Your task to perform on an android device: turn on location history Image 0: 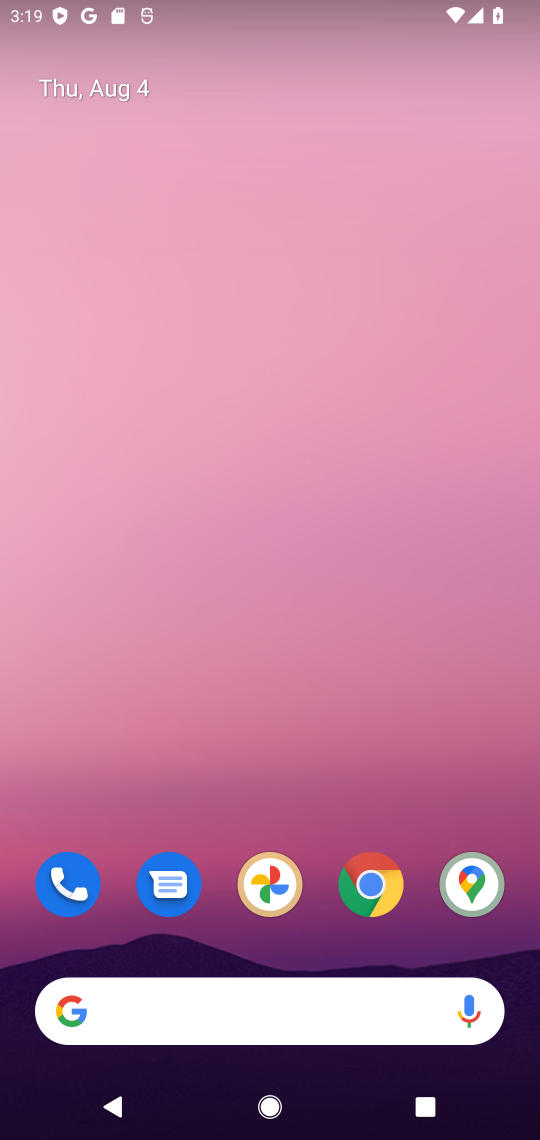
Step 0: click (257, 858)
Your task to perform on an android device: turn on location history Image 1: 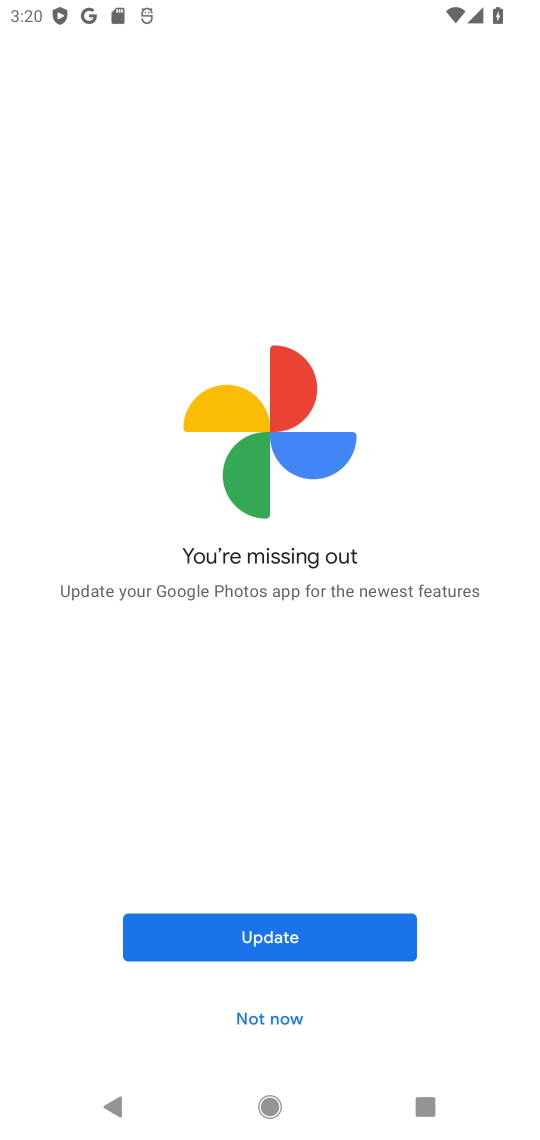
Step 1: click (281, 1023)
Your task to perform on an android device: turn on location history Image 2: 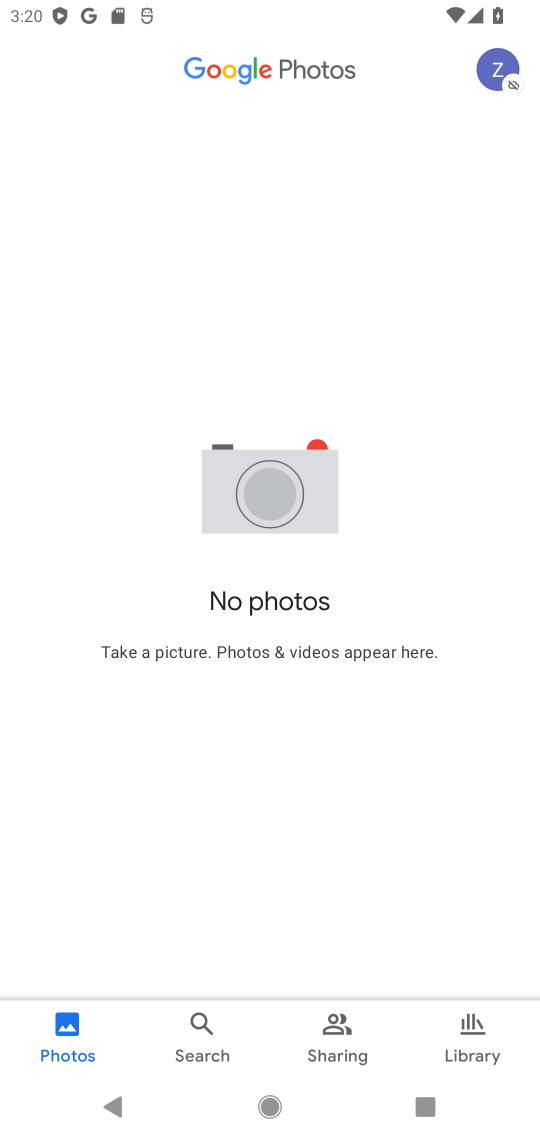
Step 2: drag from (251, 871) to (267, 447)
Your task to perform on an android device: turn on location history Image 3: 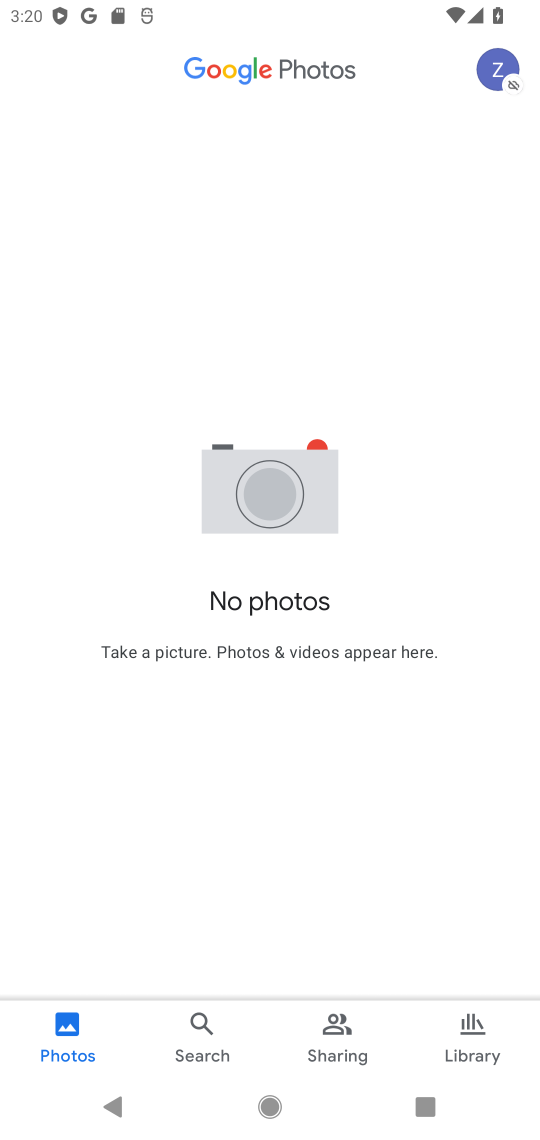
Step 3: drag from (340, 819) to (322, 619)
Your task to perform on an android device: turn on location history Image 4: 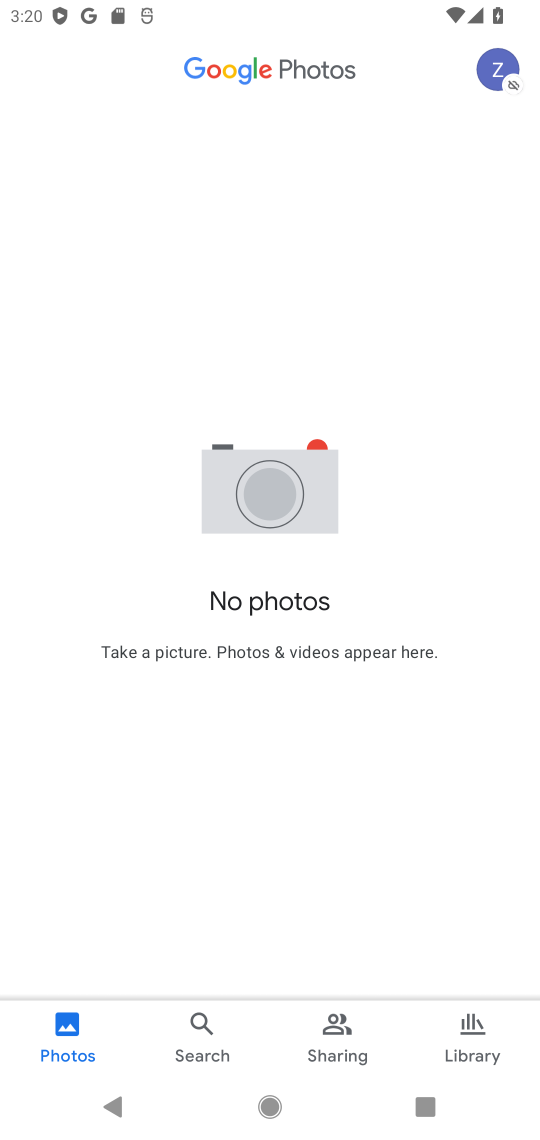
Step 4: drag from (254, 827) to (253, 461)
Your task to perform on an android device: turn on location history Image 5: 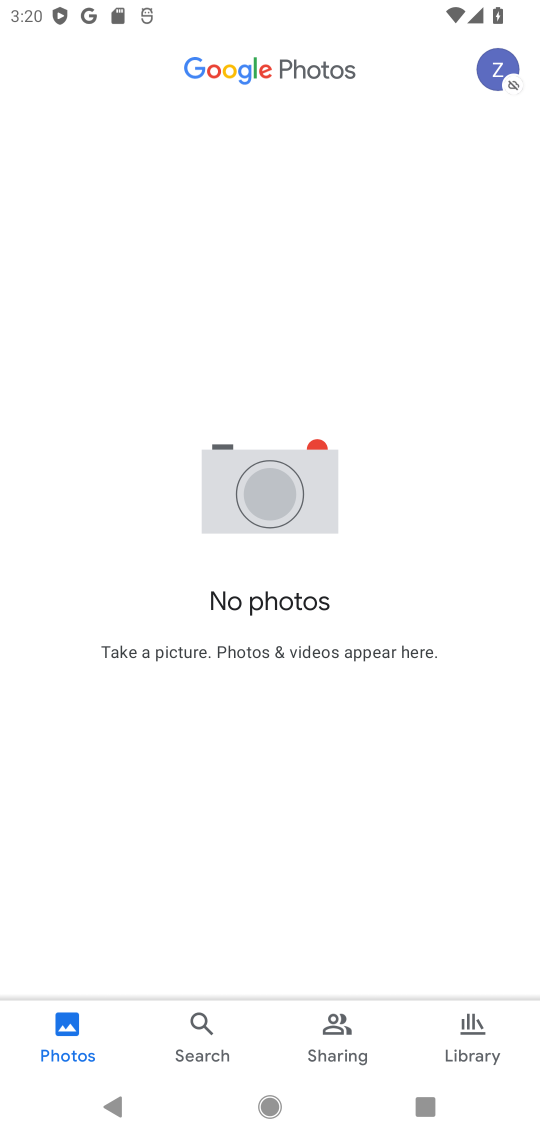
Step 5: drag from (256, 808) to (343, 457)
Your task to perform on an android device: turn on location history Image 6: 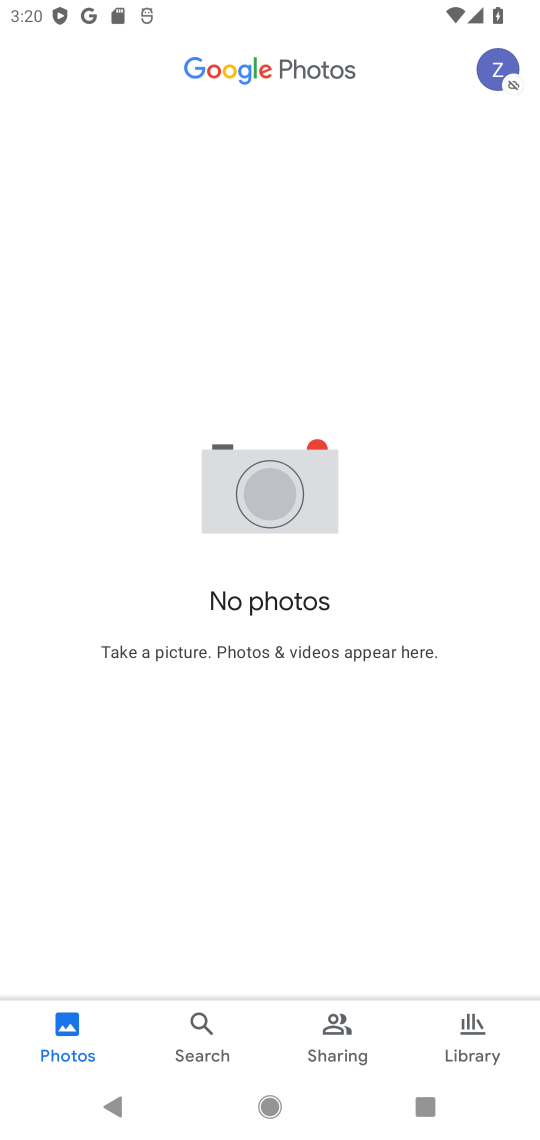
Step 6: press home button
Your task to perform on an android device: turn on location history Image 7: 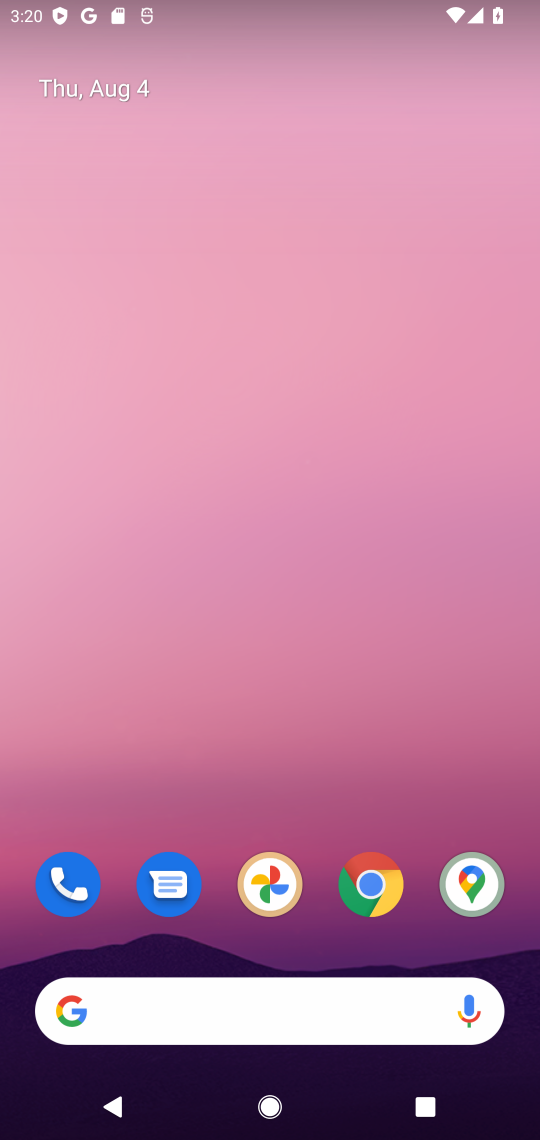
Step 7: drag from (366, 786) to (371, 134)
Your task to perform on an android device: turn on location history Image 8: 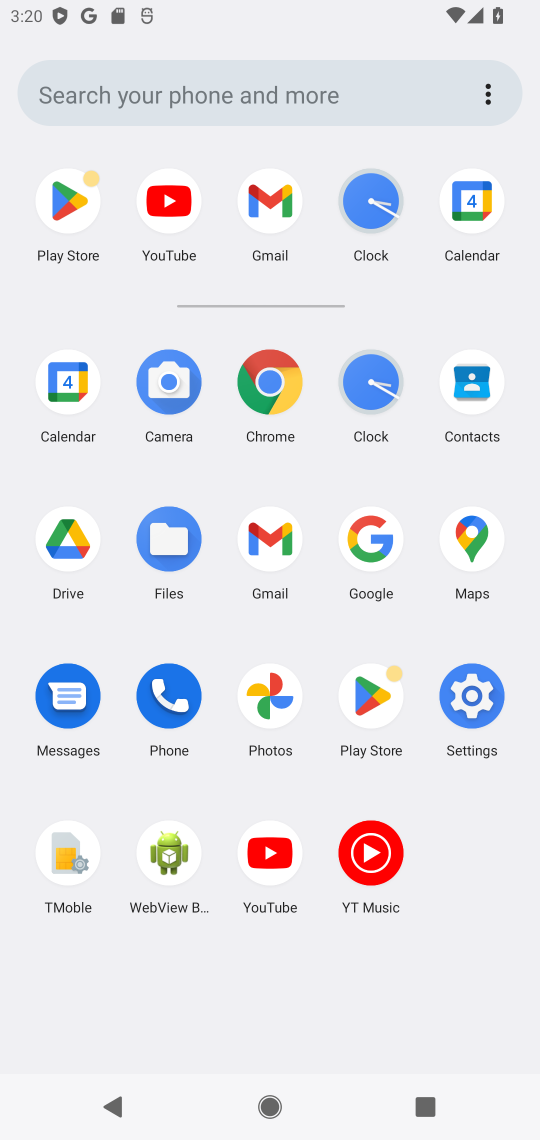
Step 8: click (473, 687)
Your task to perform on an android device: turn on location history Image 9: 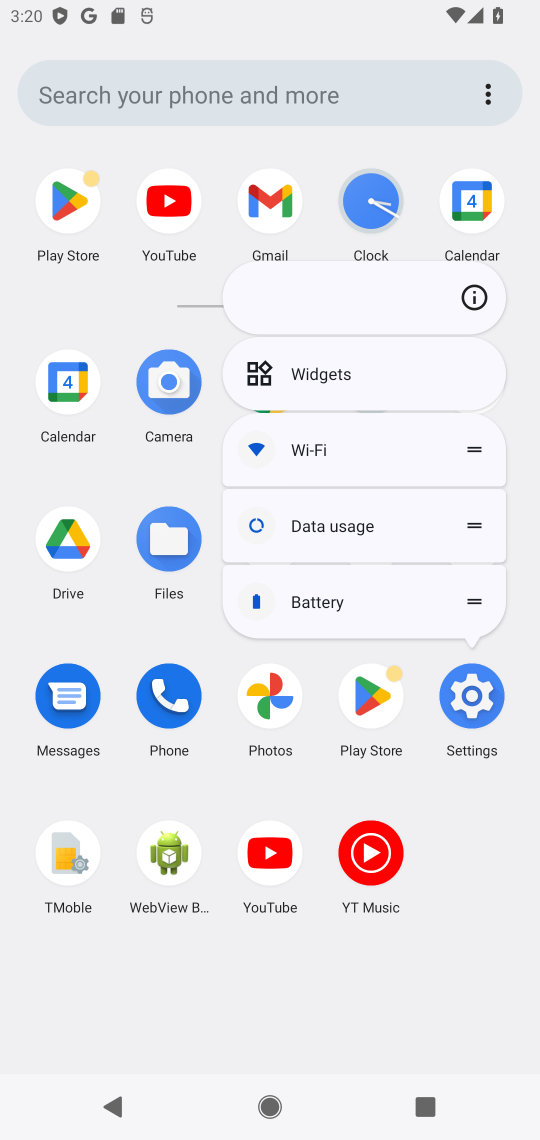
Step 9: click (475, 282)
Your task to perform on an android device: turn on location history Image 10: 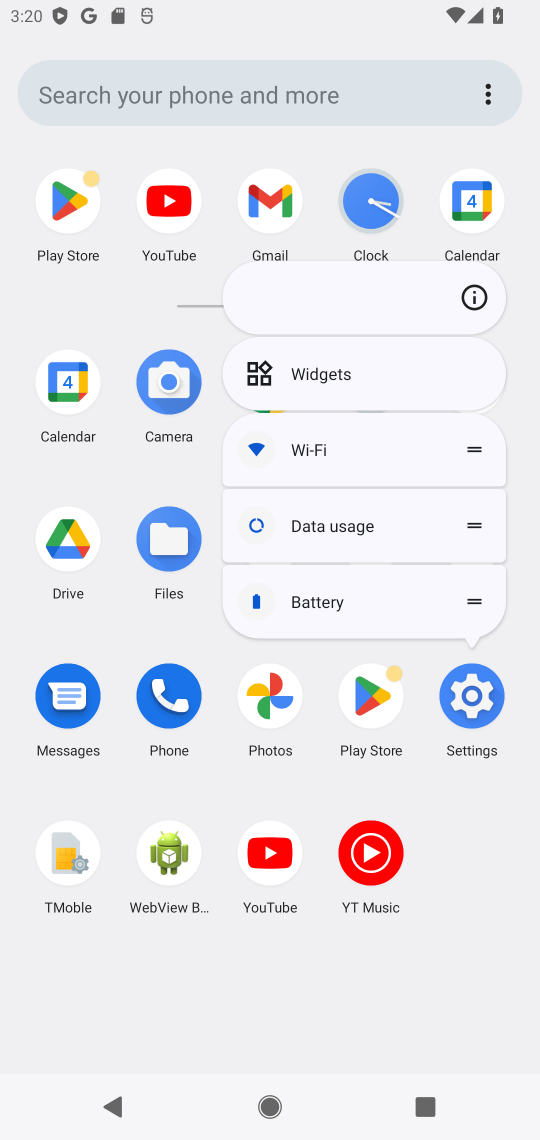
Step 10: click (490, 294)
Your task to perform on an android device: turn on location history Image 11: 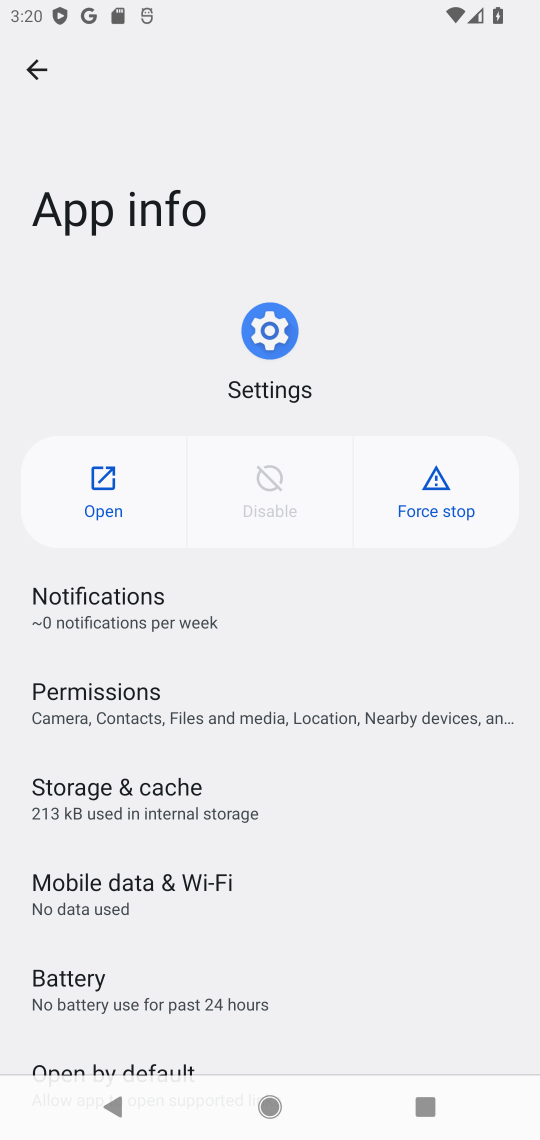
Step 11: click (97, 509)
Your task to perform on an android device: turn on location history Image 12: 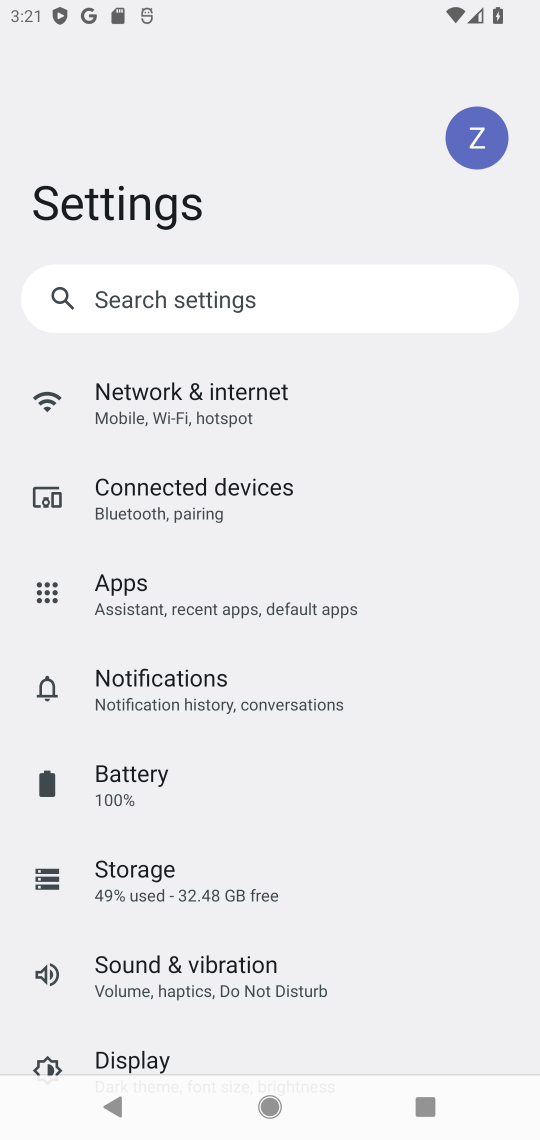
Step 12: drag from (228, 911) to (280, 204)
Your task to perform on an android device: turn on location history Image 13: 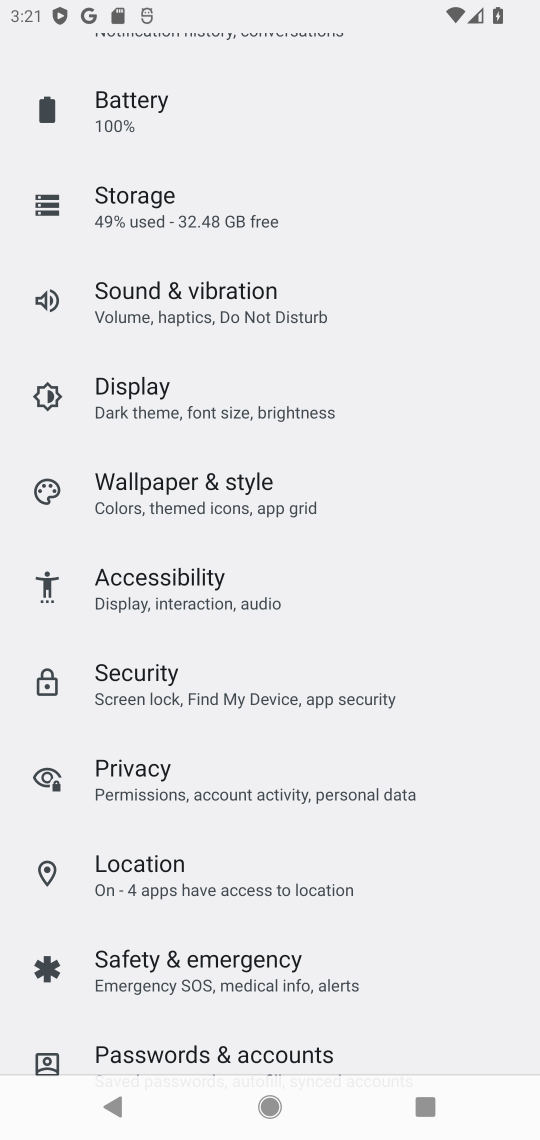
Step 13: click (191, 864)
Your task to perform on an android device: turn on location history Image 14: 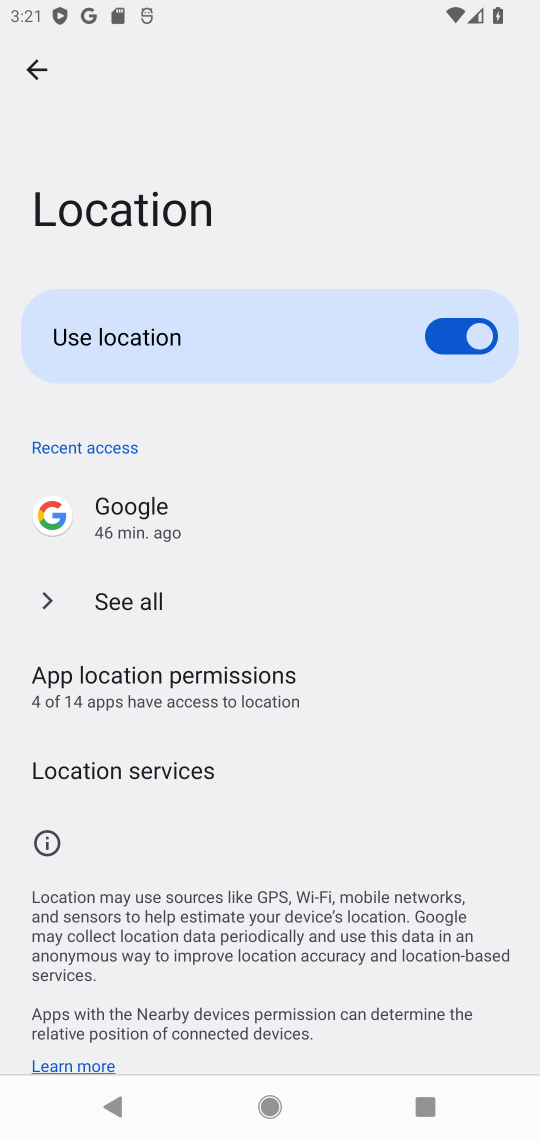
Step 14: drag from (239, 855) to (348, 384)
Your task to perform on an android device: turn on location history Image 15: 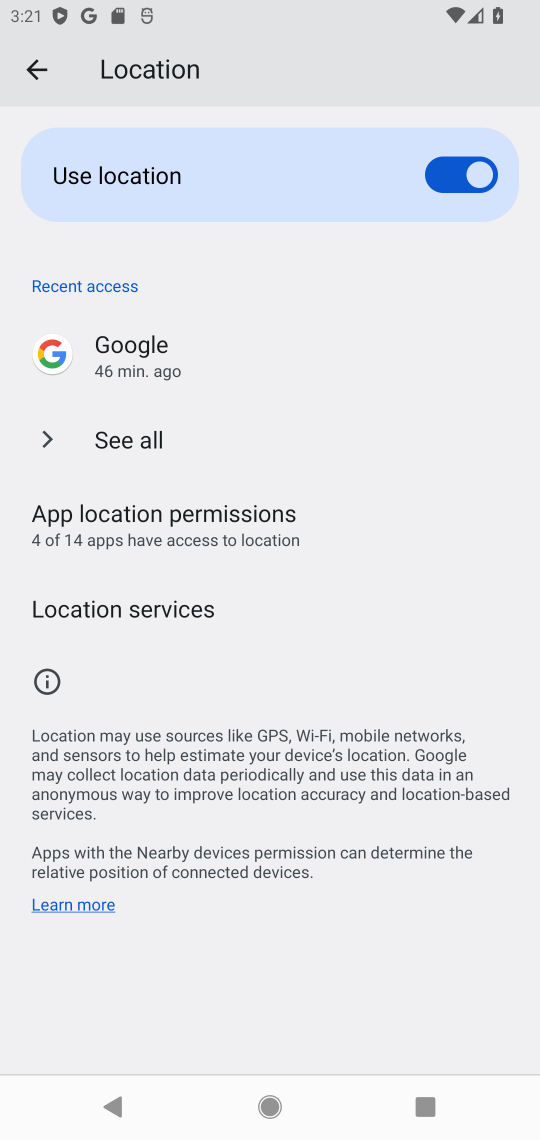
Step 15: click (90, 604)
Your task to perform on an android device: turn on location history Image 16: 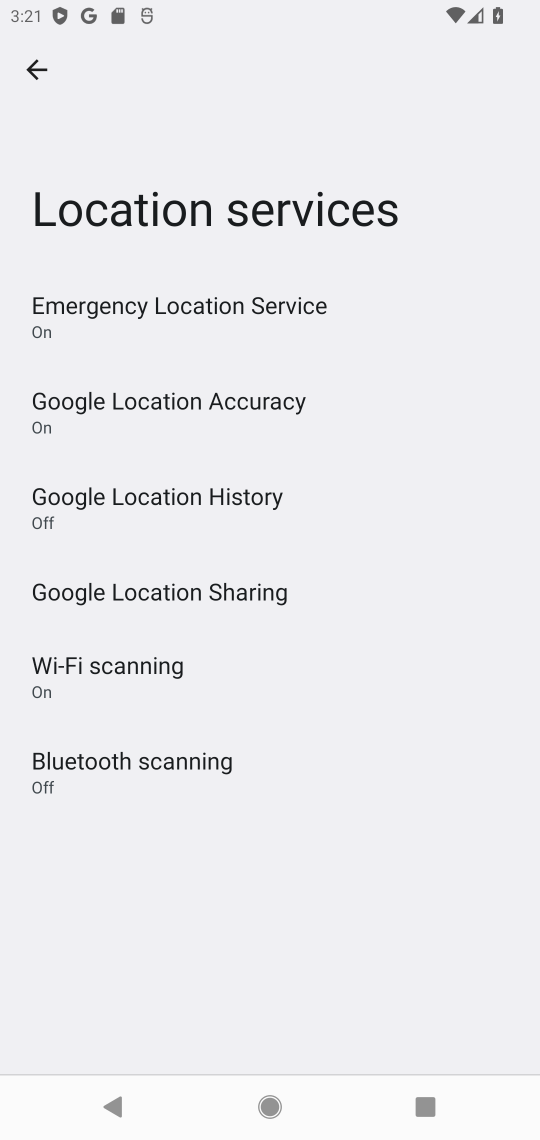
Step 16: click (265, 505)
Your task to perform on an android device: turn on location history Image 17: 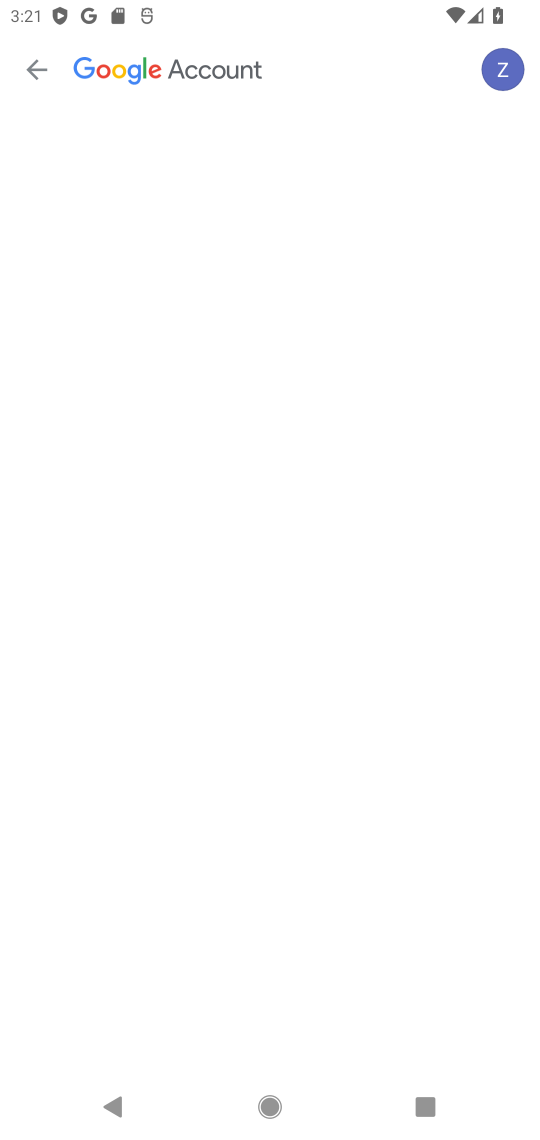
Step 17: drag from (318, 666) to (339, 448)
Your task to perform on an android device: turn on location history Image 18: 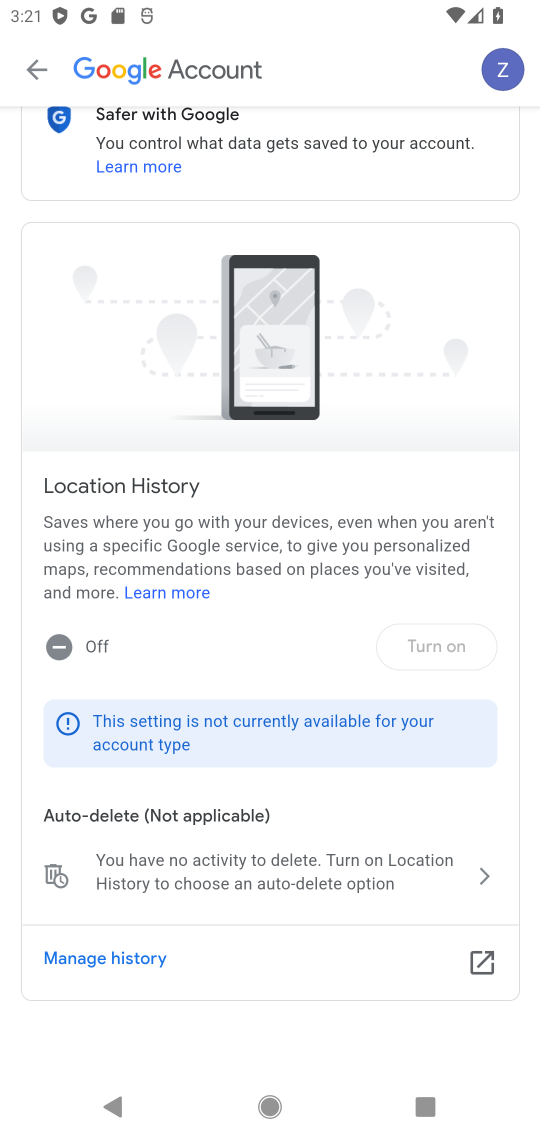
Step 18: click (441, 656)
Your task to perform on an android device: turn on location history Image 19: 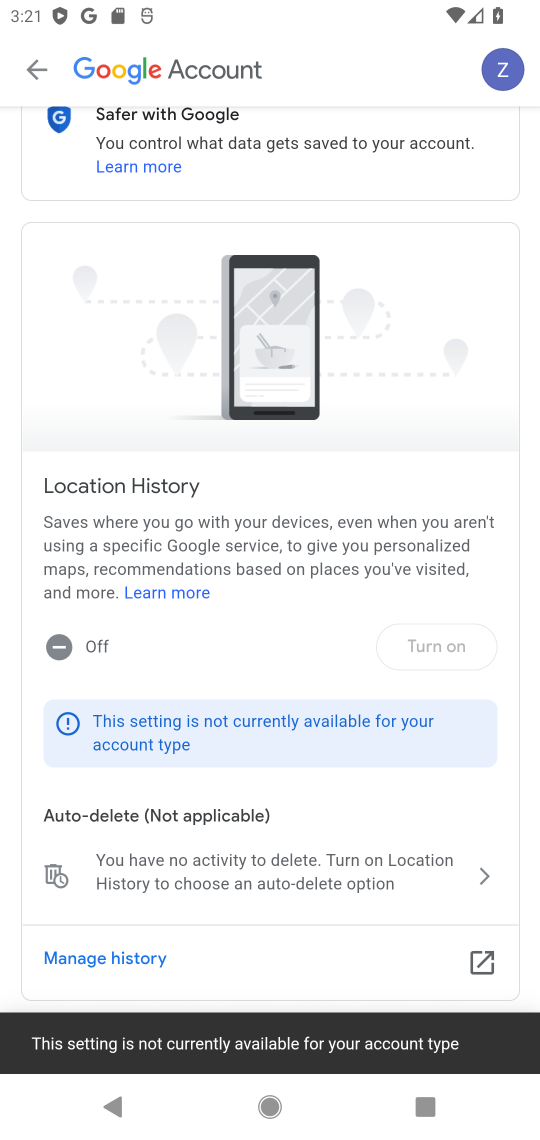
Step 19: task complete